Your task to perform on an android device: see sites visited before in the chrome app Image 0: 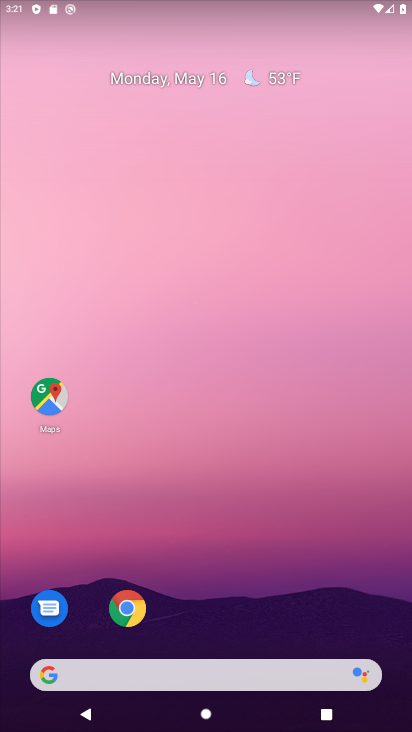
Step 0: click (129, 609)
Your task to perform on an android device: see sites visited before in the chrome app Image 1: 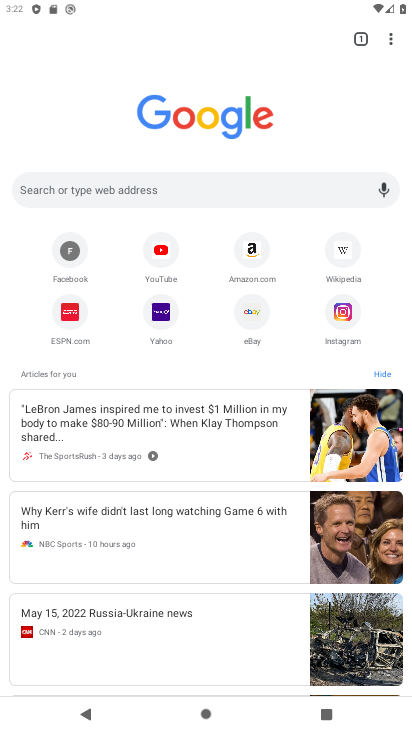
Step 1: click (391, 37)
Your task to perform on an android device: see sites visited before in the chrome app Image 2: 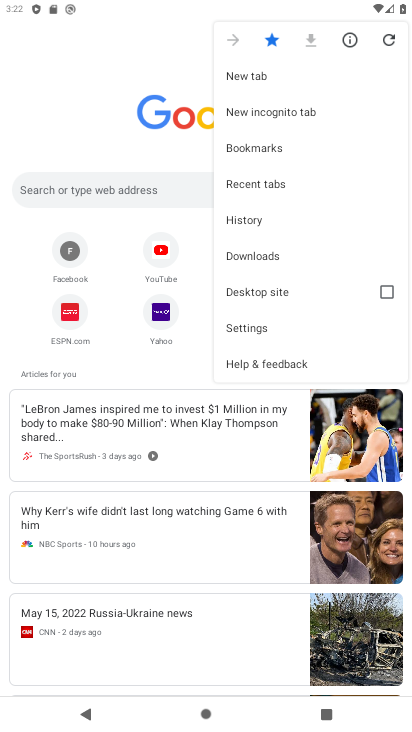
Step 2: click (249, 219)
Your task to perform on an android device: see sites visited before in the chrome app Image 3: 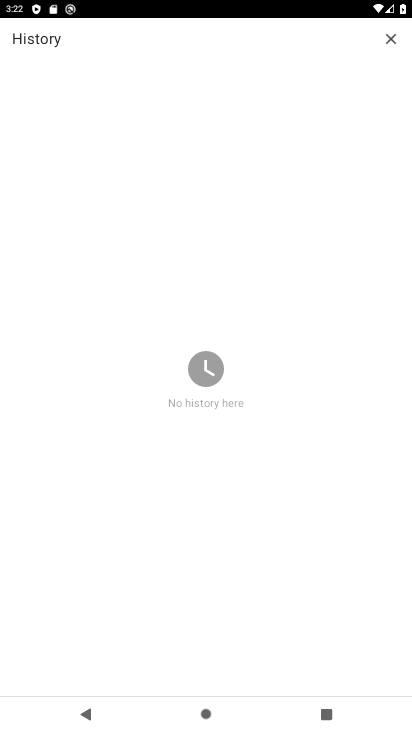
Step 3: task complete